Your task to perform on an android device: delete location history Image 0: 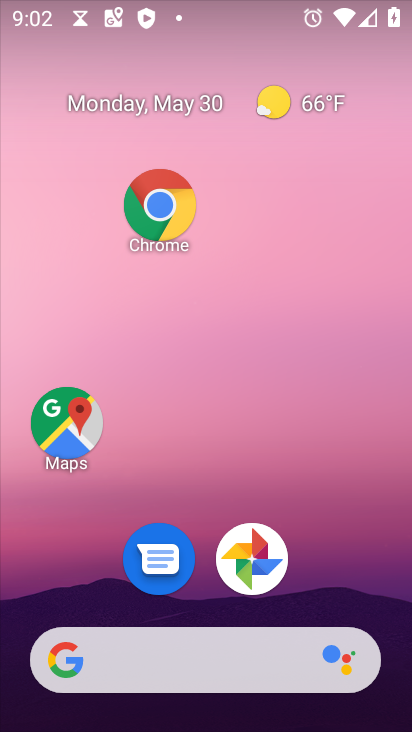
Step 0: drag from (329, 725) to (253, 129)
Your task to perform on an android device: delete location history Image 1: 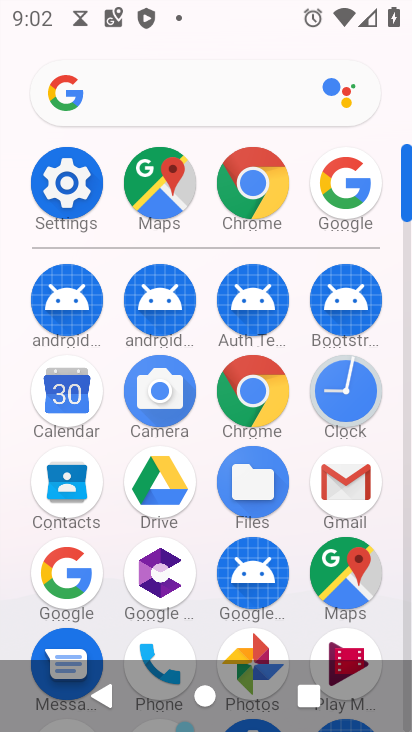
Step 1: click (63, 189)
Your task to perform on an android device: delete location history Image 2: 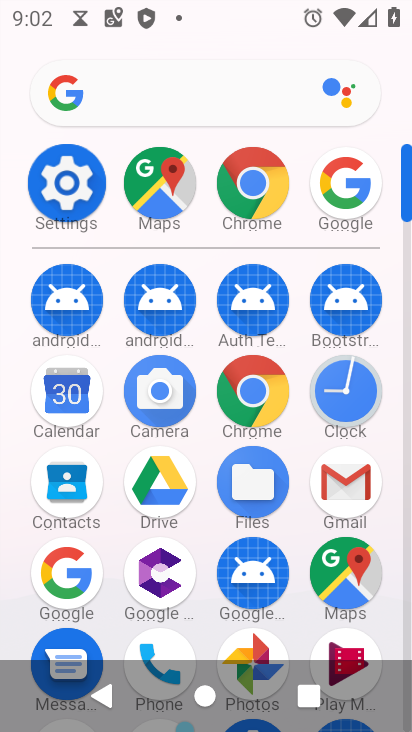
Step 2: click (62, 189)
Your task to perform on an android device: delete location history Image 3: 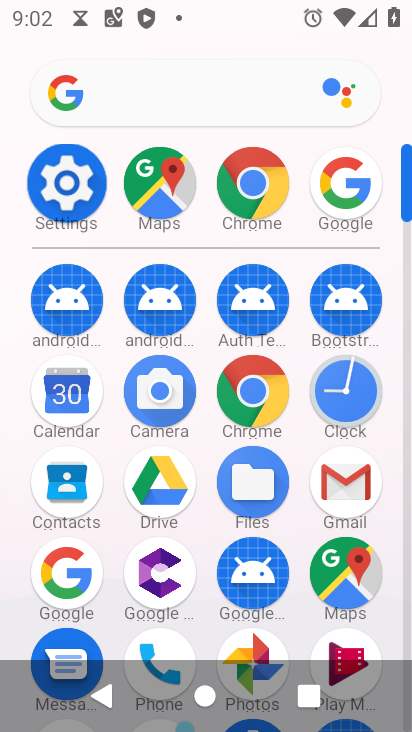
Step 3: click (64, 191)
Your task to perform on an android device: delete location history Image 4: 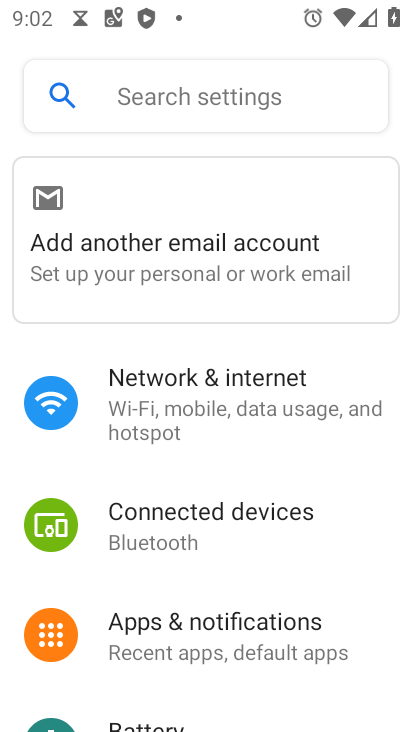
Step 4: drag from (219, 545) to (210, 312)
Your task to perform on an android device: delete location history Image 5: 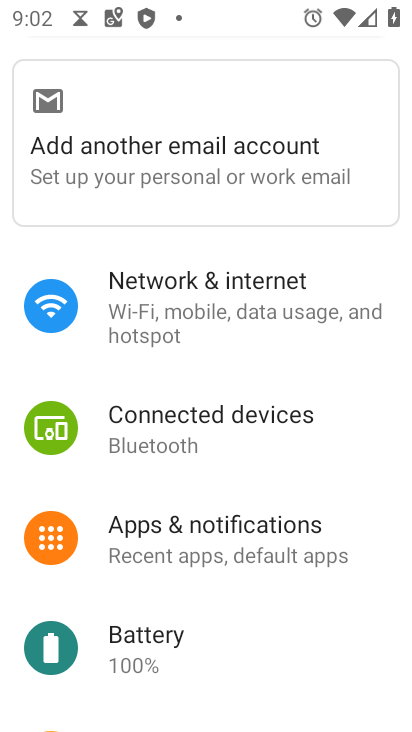
Step 5: drag from (214, 483) to (206, 179)
Your task to perform on an android device: delete location history Image 6: 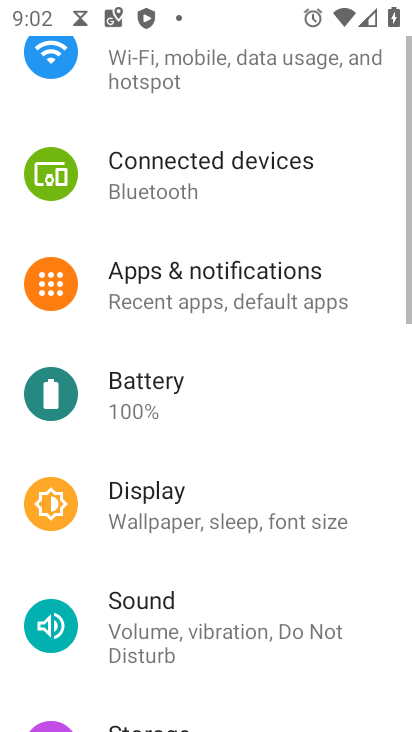
Step 6: drag from (219, 380) to (212, 188)
Your task to perform on an android device: delete location history Image 7: 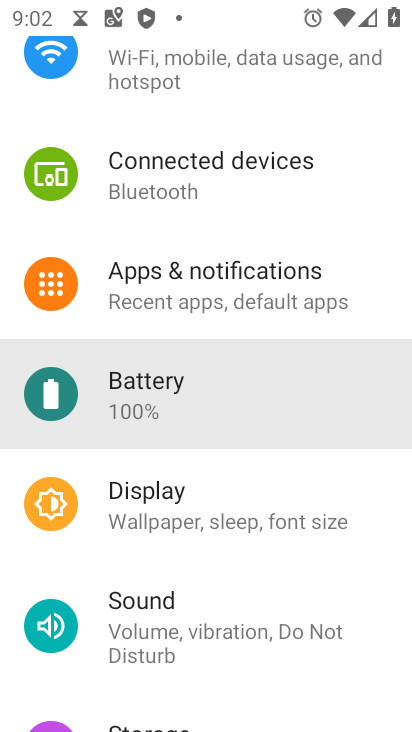
Step 7: drag from (209, 439) to (209, 220)
Your task to perform on an android device: delete location history Image 8: 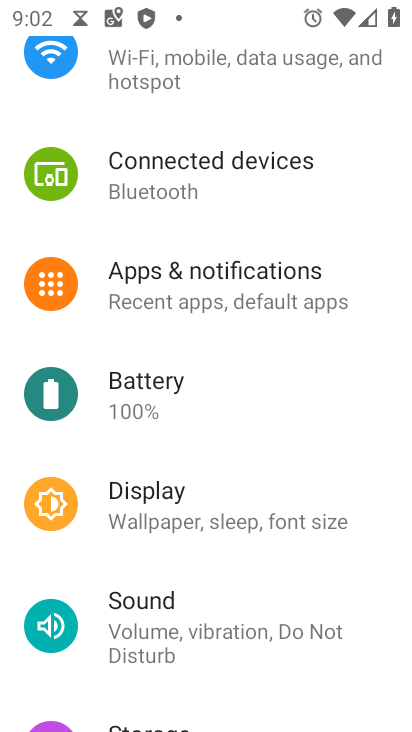
Step 8: drag from (227, 439) to (246, 280)
Your task to perform on an android device: delete location history Image 9: 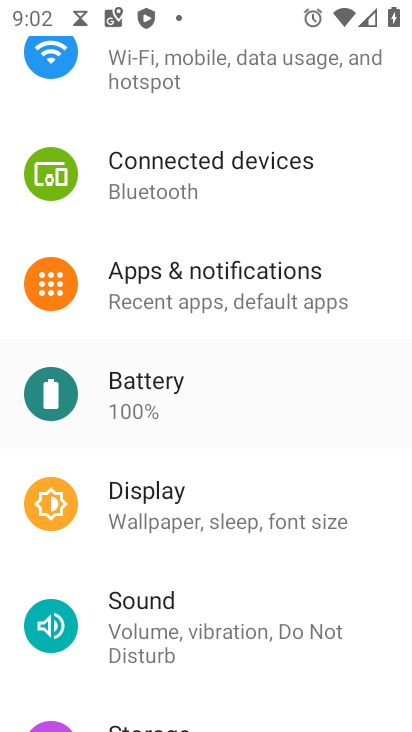
Step 9: drag from (231, 302) to (231, 255)
Your task to perform on an android device: delete location history Image 10: 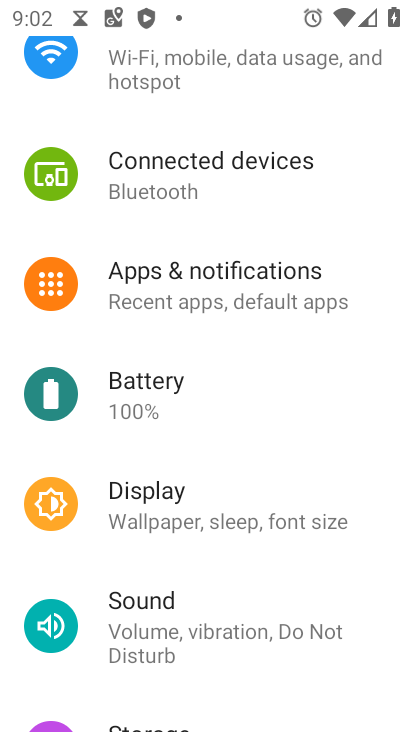
Step 10: drag from (223, 533) to (179, 170)
Your task to perform on an android device: delete location history Image 11: 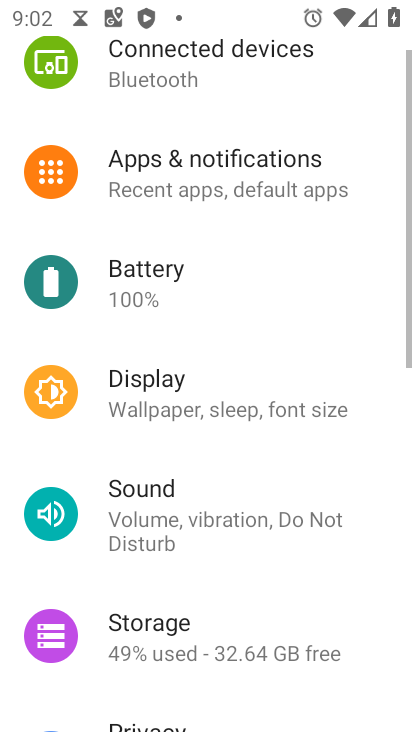
Step 11: drag from (185, 369) to (157, 155)
Your task to perform on an android device: delete location history Image 12: 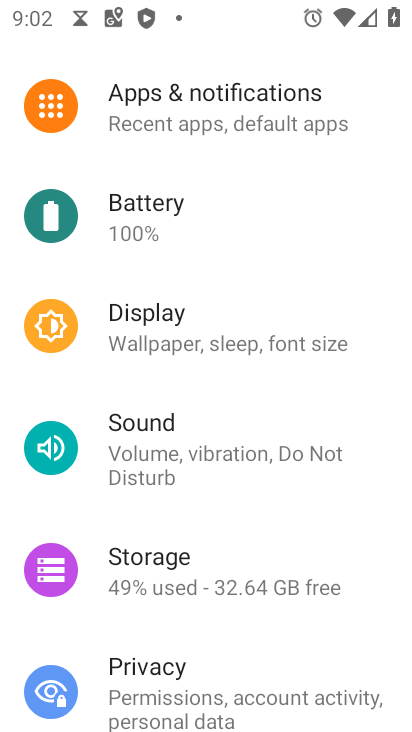
Step 12: drag from (226, 549) to (172, 150)
Your task to perform on an android device: delete location history Image 13: 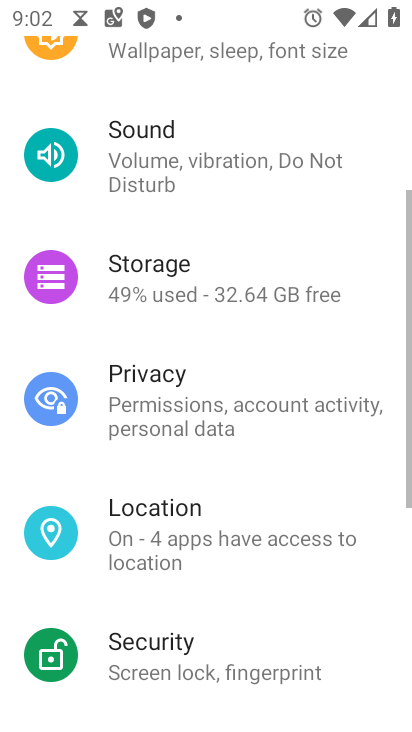
Step 13: drag from (243, 435) to (226, 212)
Your task to perform on an android device: delete location history Image 14: 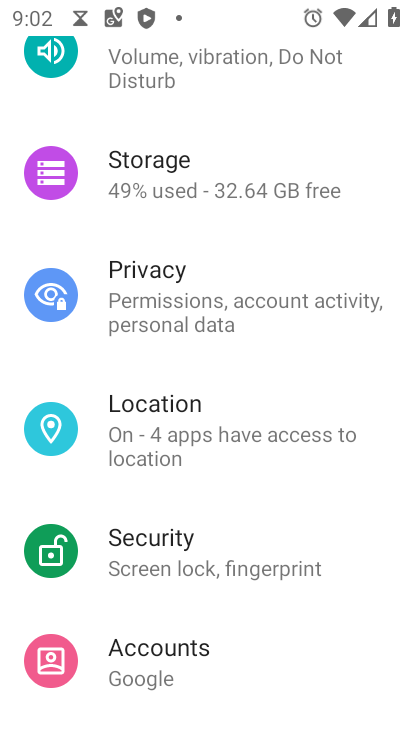
Step 14: click (144, 437)
Your task to perform on an android device: delete location history Image 15: 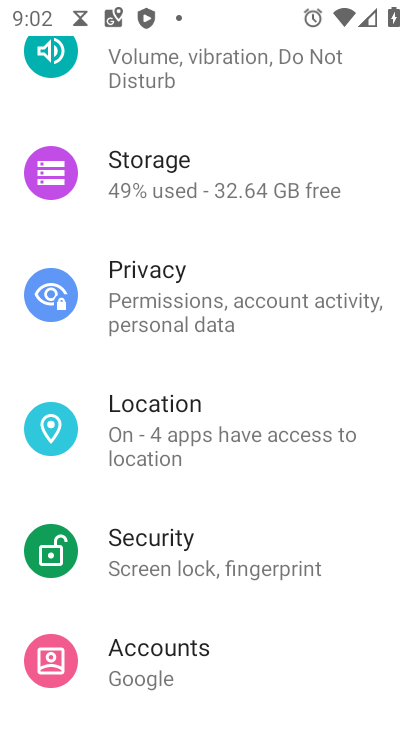
Step 15: click (144, 437)
Your task to perform on an android device: delete location history Image 16: 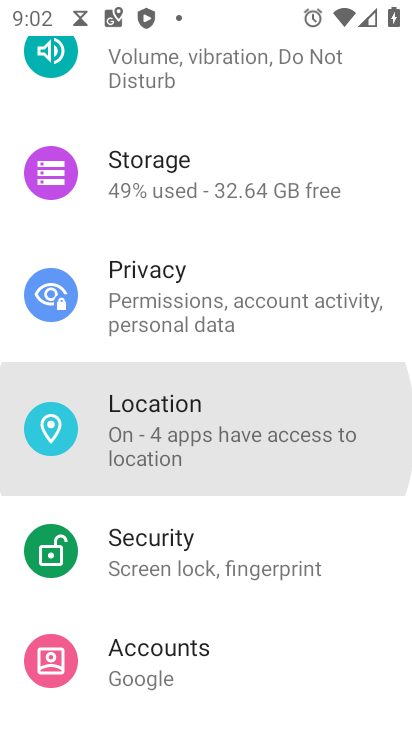
Step 16: click (144, 437)
Your task to perform on an android device: delete location history Image 17: 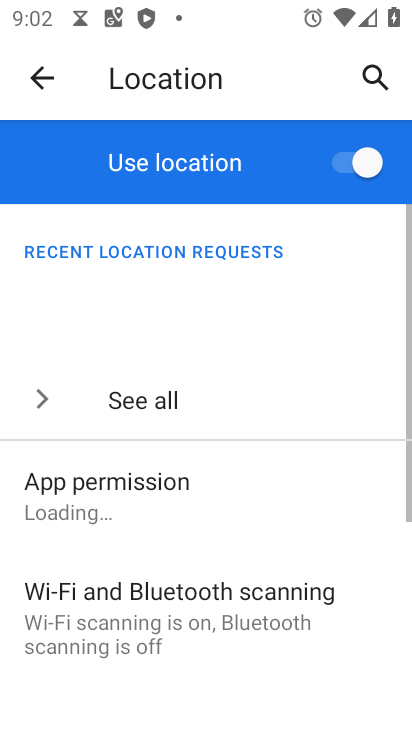
Step 17: click (153, 437)
Your task to perform on an android device: delete location history Image 18: 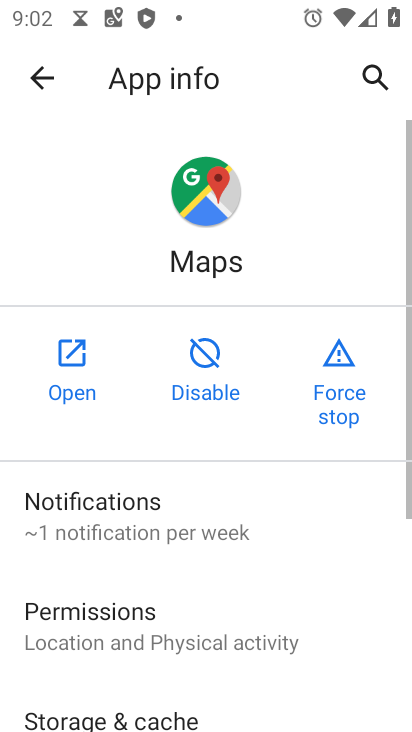
Step 18: drag from (207, 543) to (128, 99)
Your task to perform on an android device: delete location history Image 19: 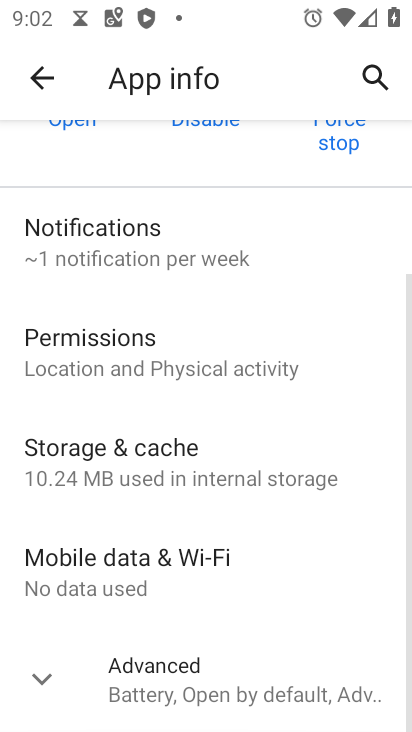
Step 19: click (38, 76)
Your task to perform on an android device: delete location history Image 20: 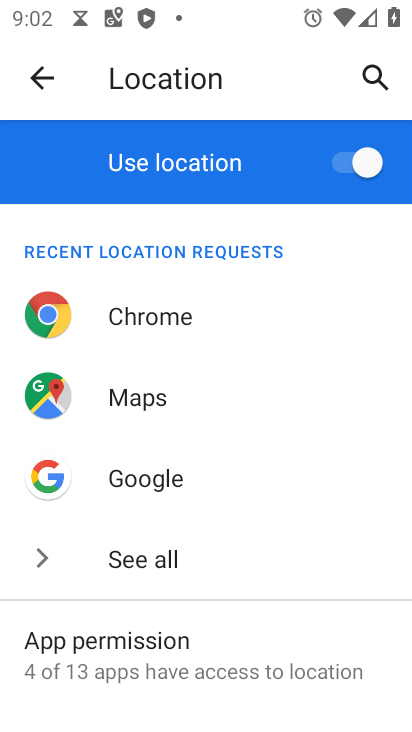
Step 20: drag from (191, 558) to (160, 188)
Your task to perform on an android device: delete location history Image 21: 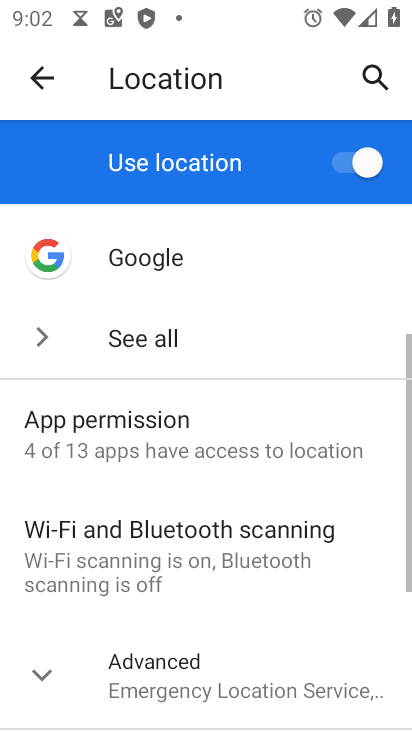
Step 21: drag from (245, 479) to (240, 209)
Your task to perform on an android device: delete location history Image 22: 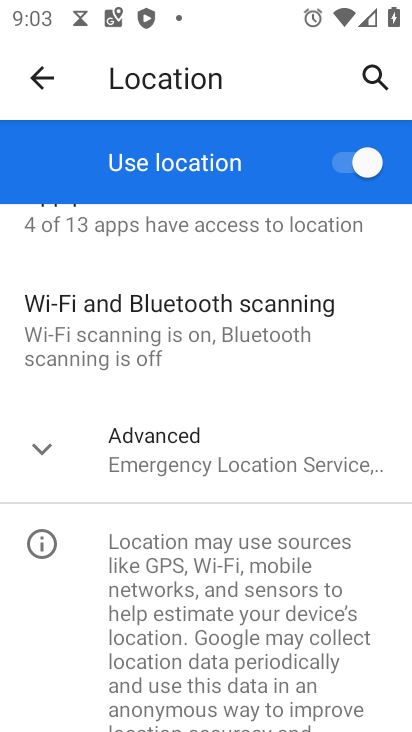
Step 22: click (170, 463)
Your task to perform on an android device: delete location history Image 23: 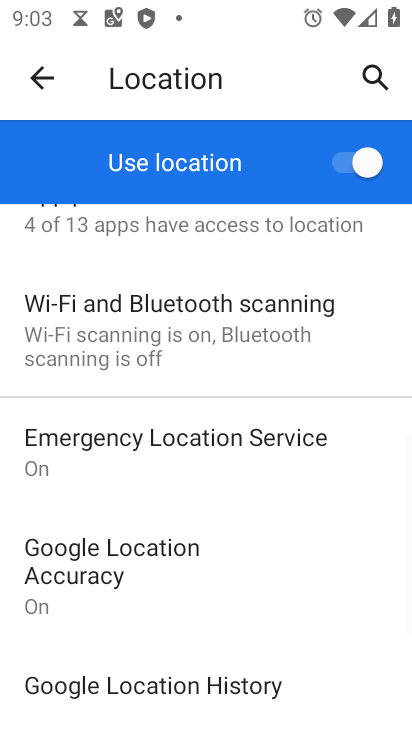
Step 23: drag from (233, 626) to (231, 305)
Your task to perform on an android device: delete location history Image 24: 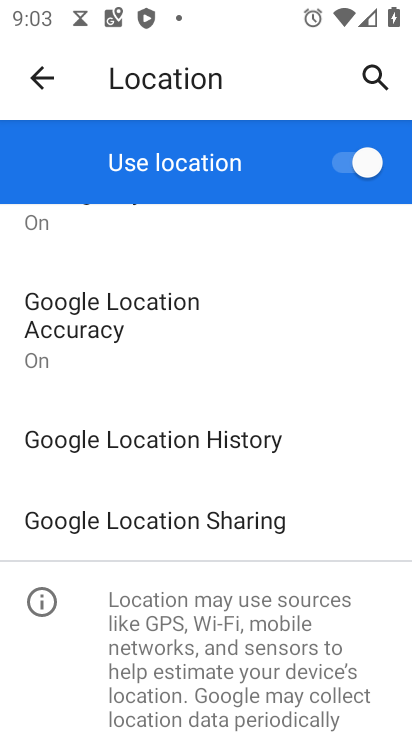
Step 24: click (156, 445)
Your task to perform on an android device: delete location history Image 25: 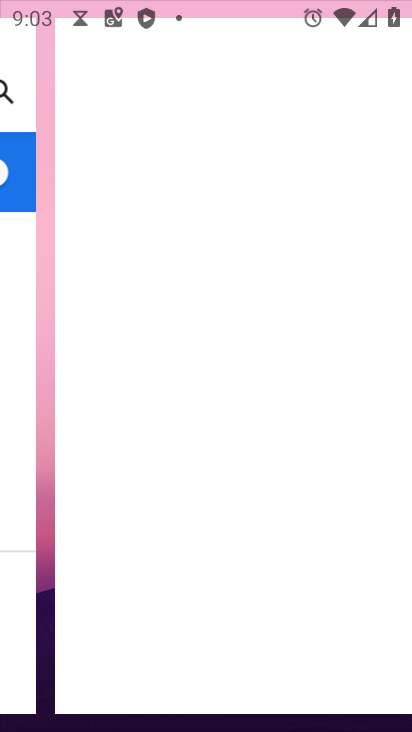
Step 25: click (156, 445)
Your task to perform on an android device: delete location history Image 26: 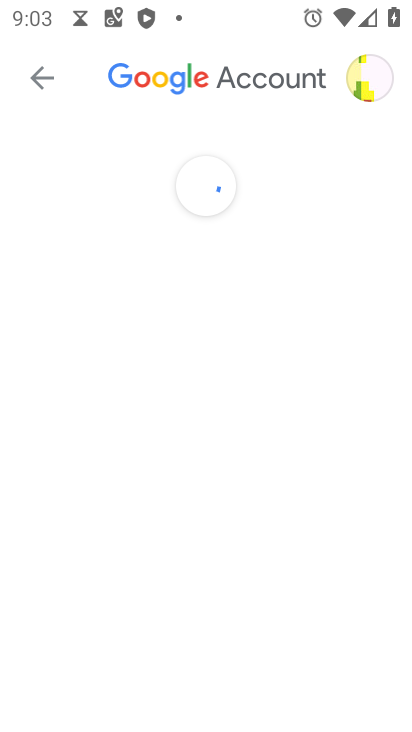
Step 26: drag from (251, 555) to (207, 192)
Your task to perform on an android device: delete location history Image 27: 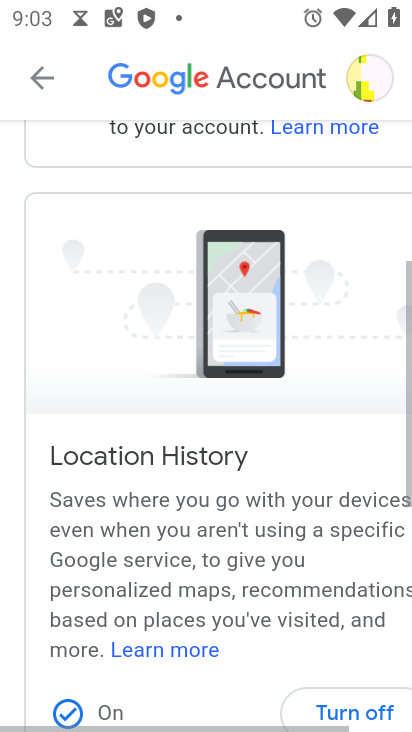
Step 27: drag from (257, 414) to (208, 226)
Your task to perform on an android device: delete location history Image 28: 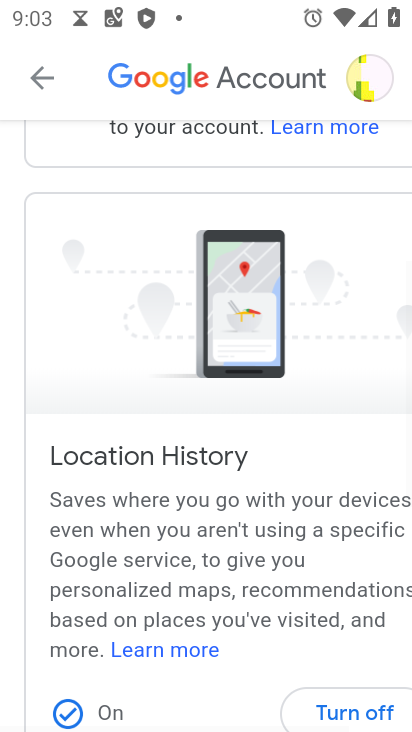
Step 28: drag from (289, 512) to (233, 235)
Your task to perform on an android device: delete location history Image 29: 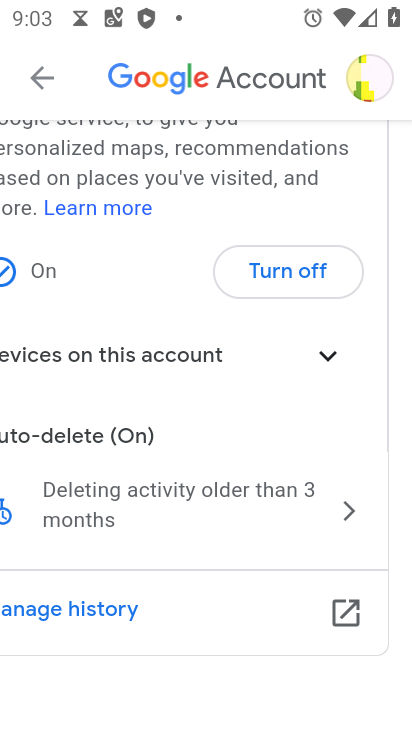
Step 29: drag from (228, 483) to (120, 351)
Your task to perform on an android device: delete location history Image 30: 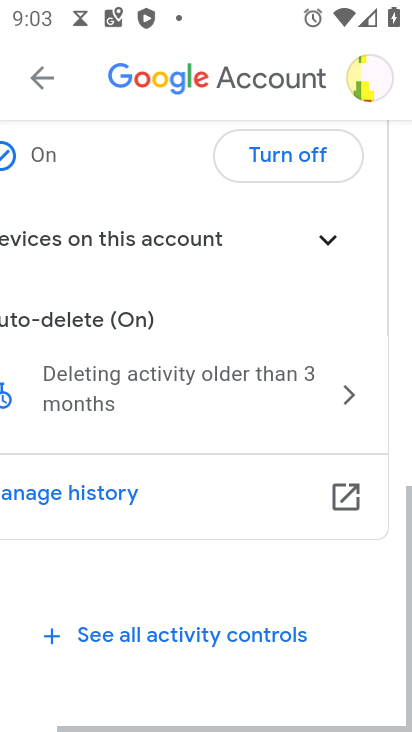
Step 30: drag from (110, 433) to (110, 202)
Your task to perform on an android device: delete location history Image 31: 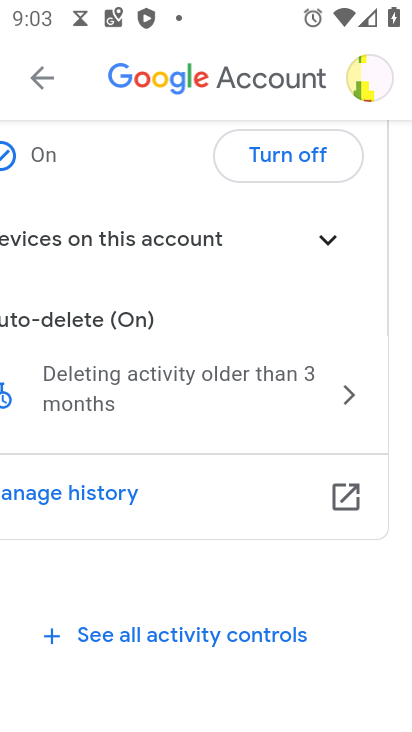
Step 31: drag from (97, 411) to (33, 260)
Your task to perform on an android device: delete location history Image 32: 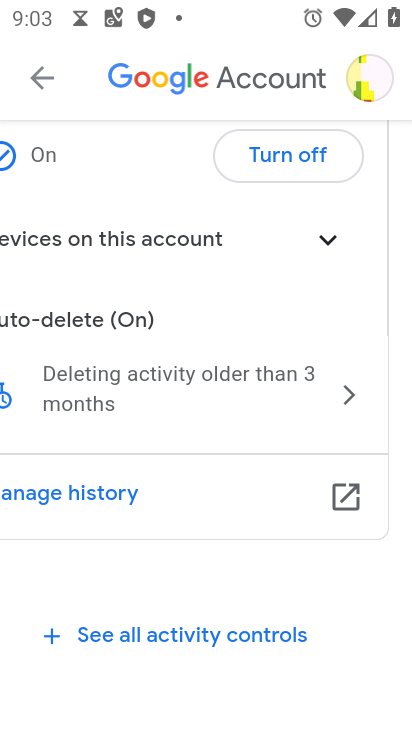
Step 32: drag from (93, 442) to (54, 417)
Your task to perform on an android device: delete location history Image 33: 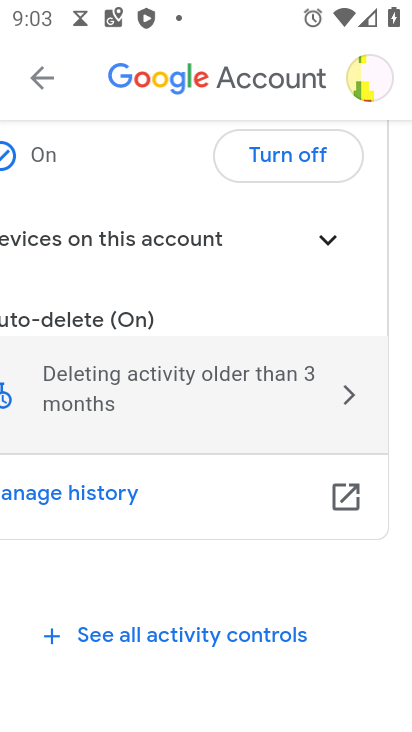
Step 33: drag from (179, 538) to (301, 576)
Your task to perform on an android device: delete location history Image 34: 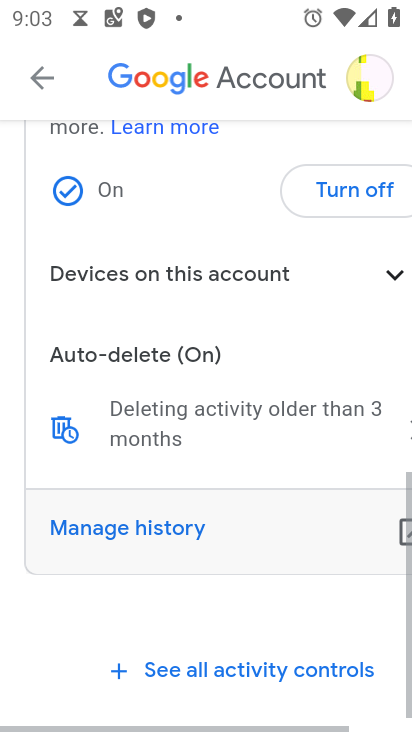
Step 34: drag from (249, 573) to (93, 567)
Your task to perform on an android device: delete location history Image 35: 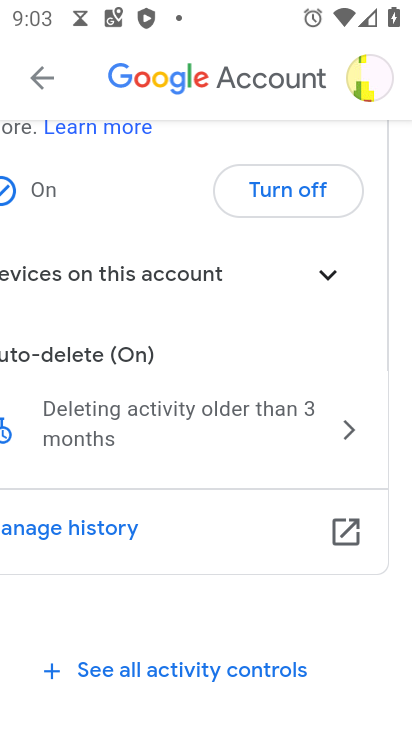
Step 35: drag from (147, 560) to (3, 588)
Your task to perform on an android device: delete location history Image 36: 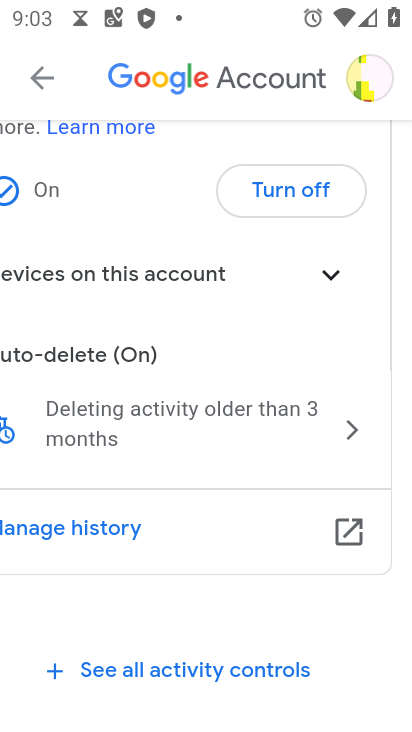
Step 36: click (5, 436)
Your task to perform on an android device: delete location history Image 37: 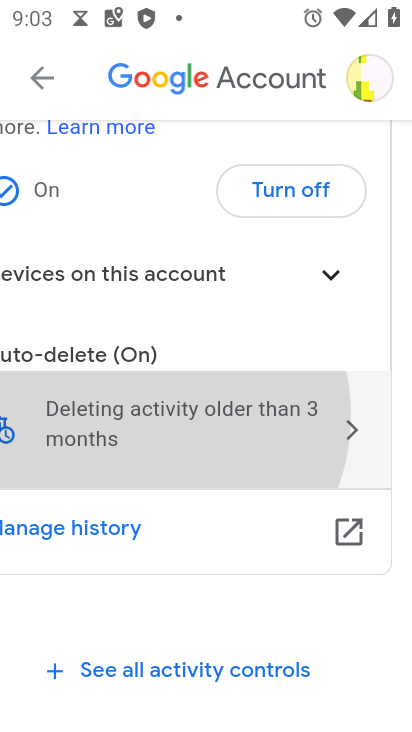
Step 37: click (5, 436)
Your task to perform on an android device: delete location history Image 38: 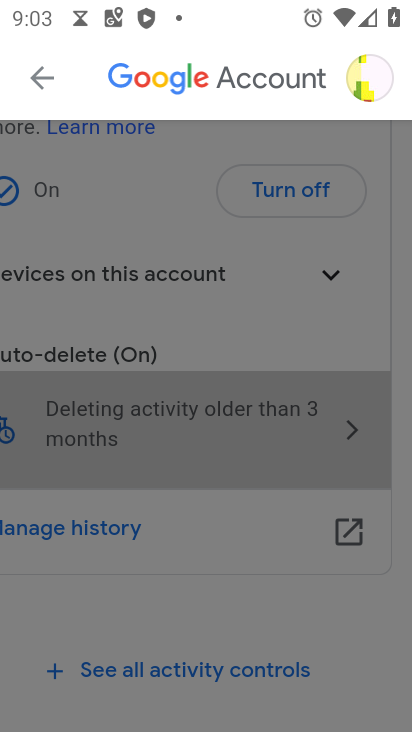
Step 38: click (5, 436)
Your task to perform on an android device: delete location history Image 39: 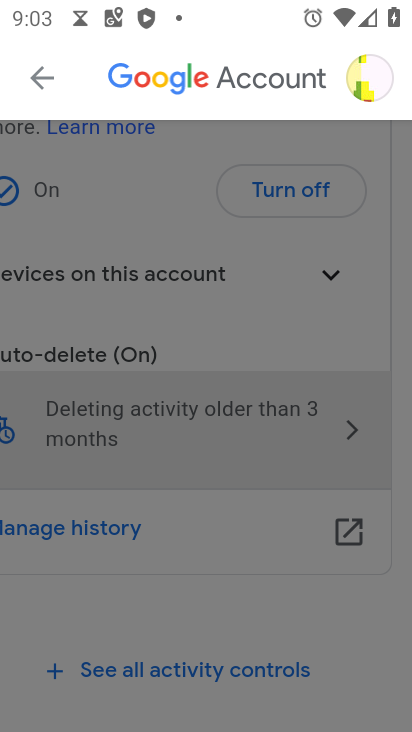
Step 39: click (6, 437)
Your task to perform on an android device: delete location history Image 40: 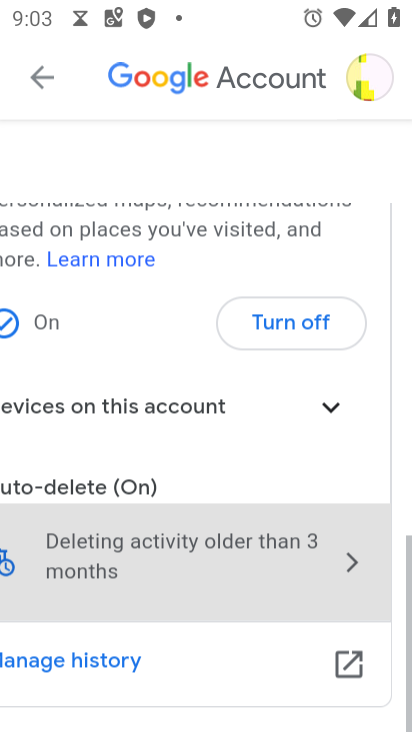
Step 40: click (5, 436)
Your task to perform on an android device: delete location history Image 41: 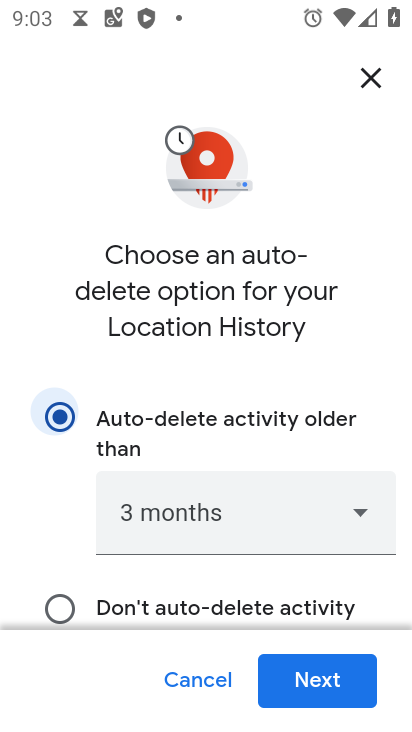
Step 41: click (68, 609)
Your task to perform on an android device: delete location history Image 42: 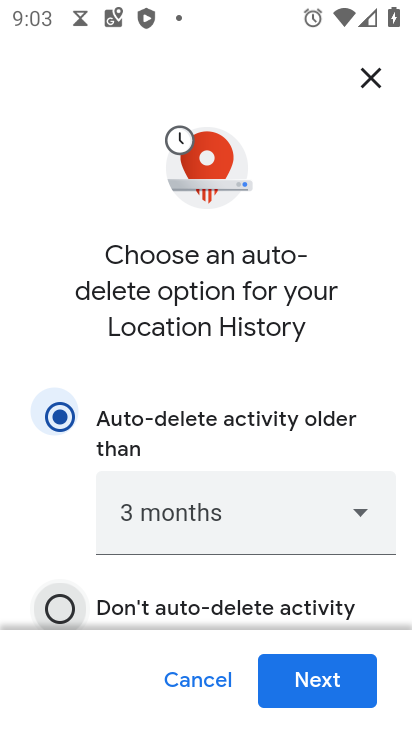
Step 42: click (66, 606)
Your task to perform on an android device: delete location history Image 43: 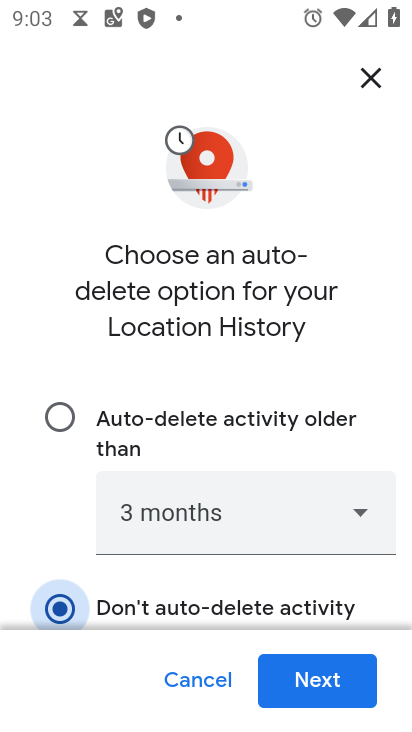
Step 43: click (65, 606)
Your task to perform on an android device: delete location history Image 44: 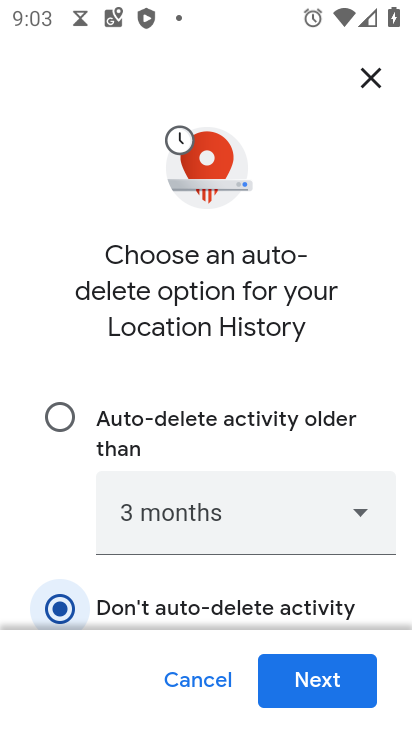
Step 44: click (313, 684)
Your task to perform on an android device: delete location history Image 45: 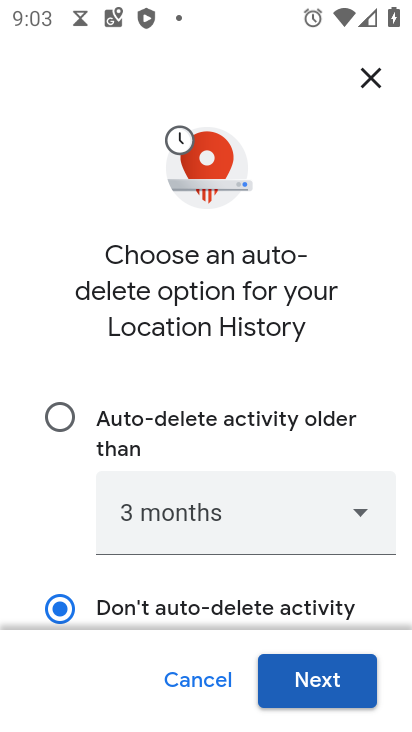
Step 45: task complete